Your task to perform on an android device: find snoozed emails in the gmail app Image 0: 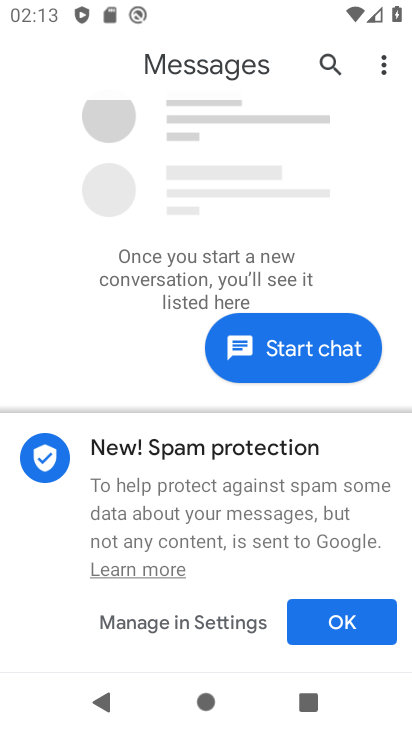
Step 0: drag from (199, 594) to (219, 171)
Your task to perform on an android device: find snoozed emails in the gmail app Image 1: 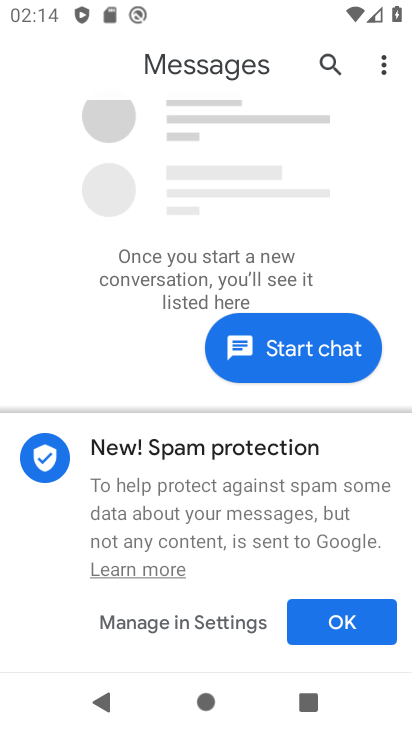
Step 1: press home button
Your task to perform on an android device: find snoozed emails in the gmail app Image 2: 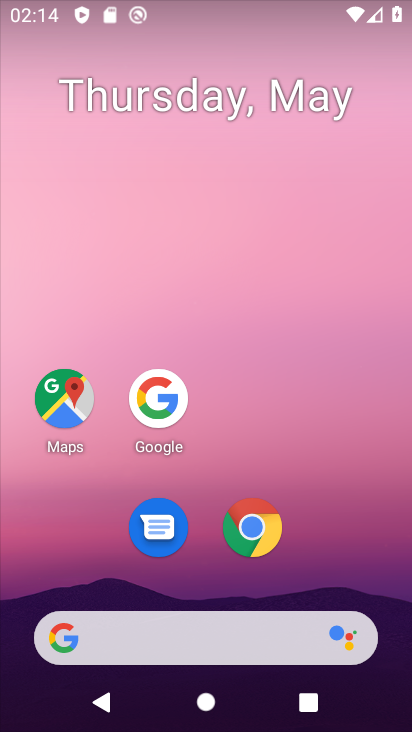
Step 2: drag from (182, 558) to (241, 116)
Your task to perform on an android device: find snoozed emails in the gmail app Image 3: 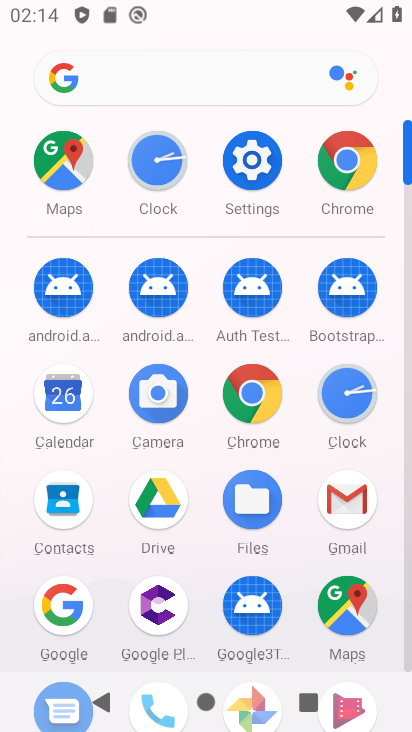
Step 3: click (334, 605)
Your task to perform on an android device: find snoozed emails in the gmail app Image 4: 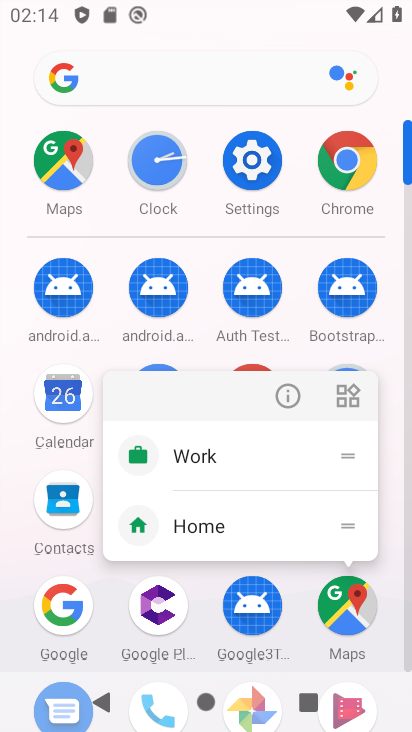
Step 4: click (289, 230)
Your task to perform on an android device: find snoozed emails in the gmail app Image 5: 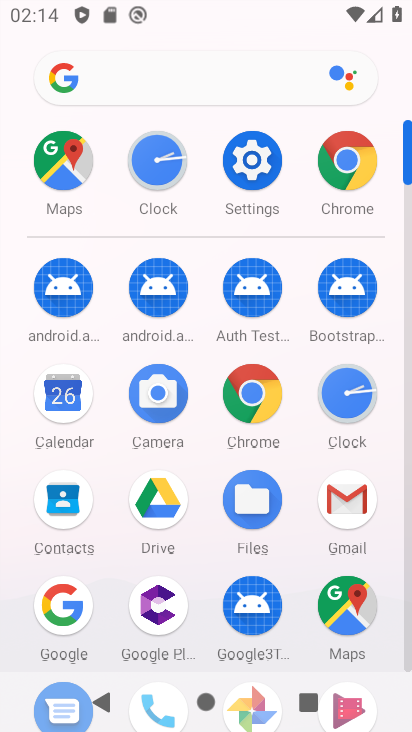
Step 5: click (332, 515)
Your task to perform on an android device: find snoozed emails in the gmail app Image 6: 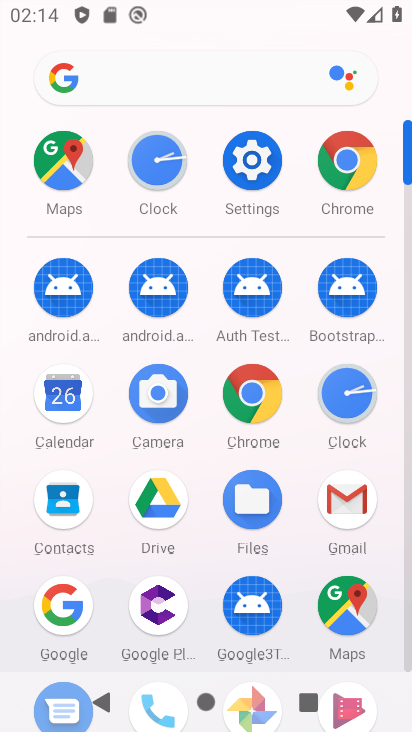
Step 6: click (332, 515)
Your task to perform on an android device: find snoozed emails in the gmail app Image 7: 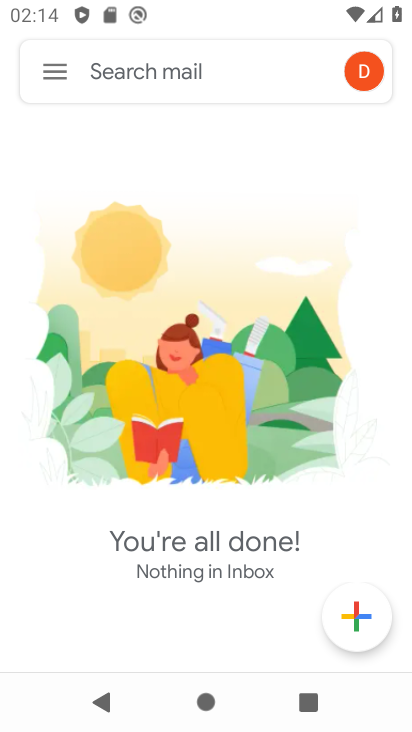
Step 7: click (44, 64)
Your task to perform on an android device: find snoozed emails in the gmail app Image 8: 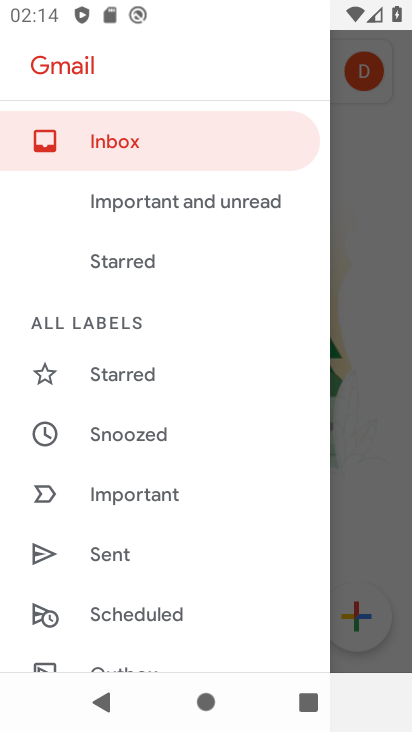
Step 8: click (121, 447)
Your task to perform on an android device: find snoozed emails in the gmail app Image 9: 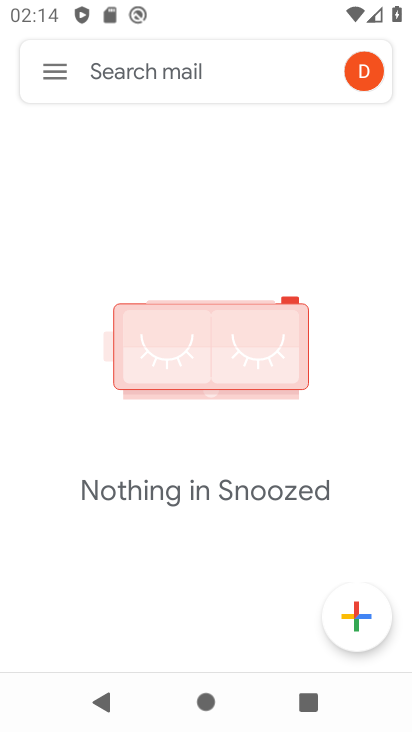
Step 9: task complete